Your task to perform on an android device: Go to Reddit.com Image 0: 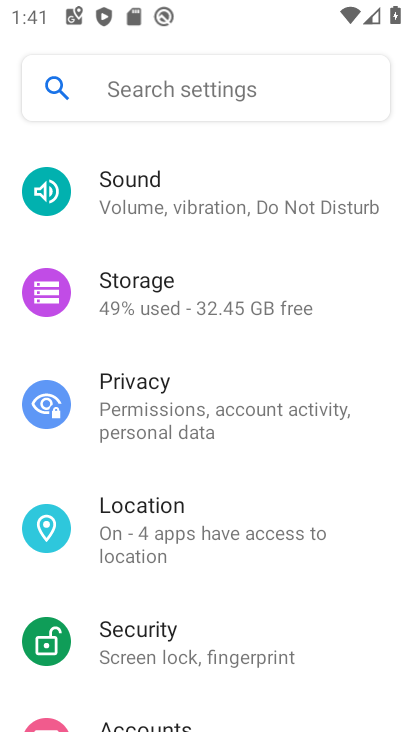
Step 0: press home button
Your task to perform on an android device: Go to Reddit.com Image 1: 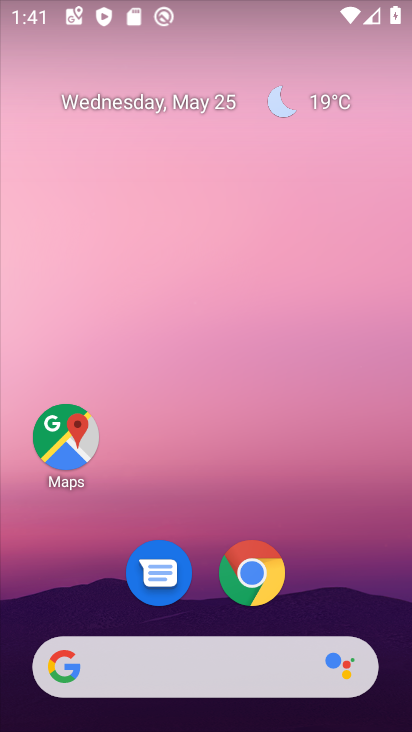
Step 1: click (247, 564)
Your task to perform on an android device: Go to Reddit.com Image 2: 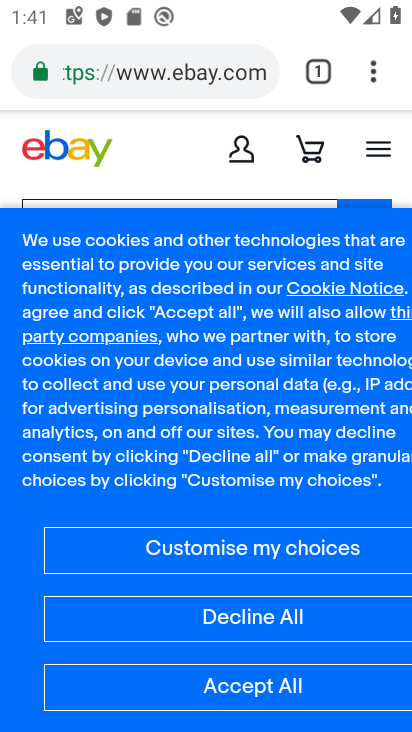
Step 2: click (190, 70)
Your task to perform on an android device: Go to Reddit.com Image 3: 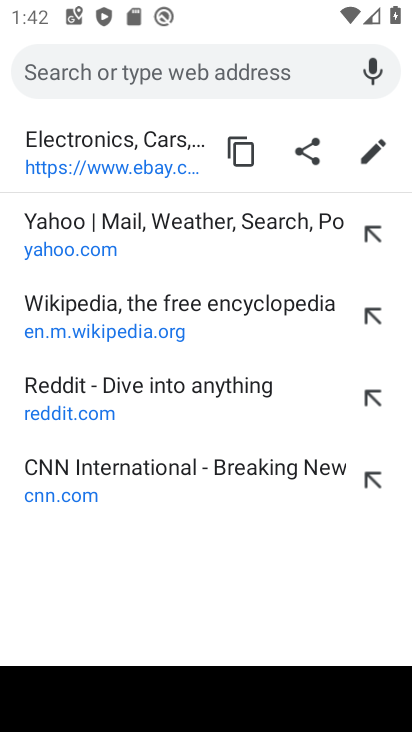
Step 3: type "reddit.com"
Your task to perform on an android device: Go to Reddit.com Image 4: 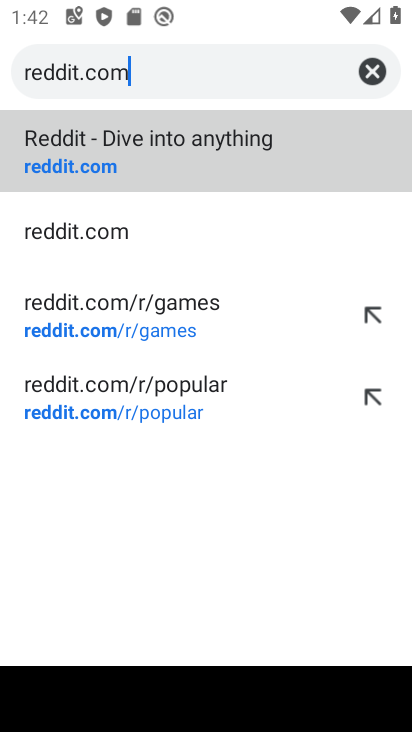
Step 4: click (123, 162)
Your task to perform on an android device: Go to Reddit.com Image 5: 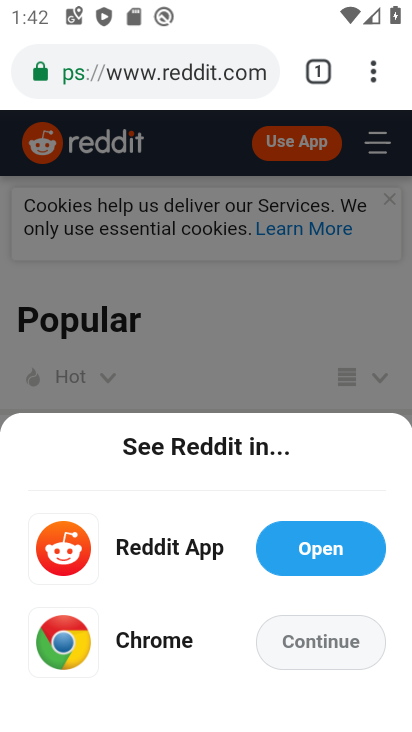
Step 5: task complete